Your task to perform on an android device: toggle notifications settings in the gmail app Image 0: 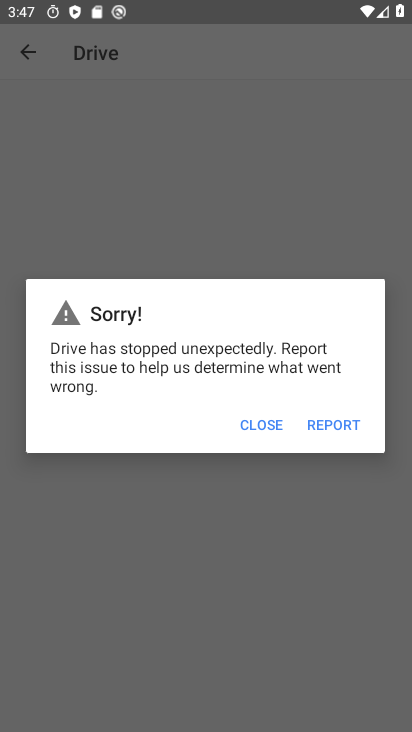
Step 0: press home button
Your task to perform on an android device: toggle notifications settings in the gmail app Image 1: 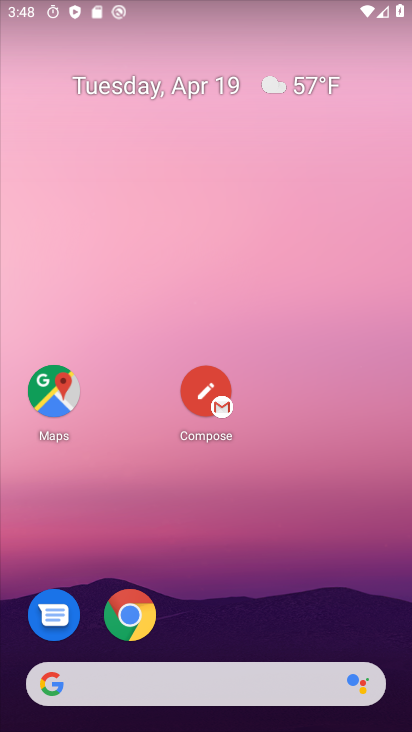
Step 1: drag from (266, 656) to (314, 203)
Your task to perform on an android device: toggle notifications settings in the gmail app Image 2: 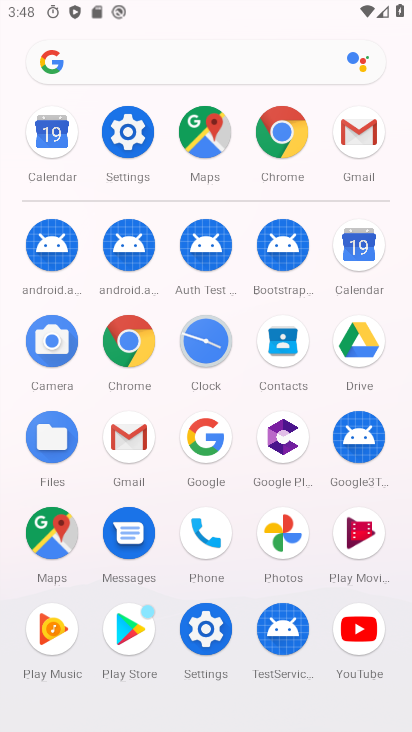
Step 2: click (123, 451)
Your task to perform on an android device: toggle notifications settings in the gmail app Image 3: 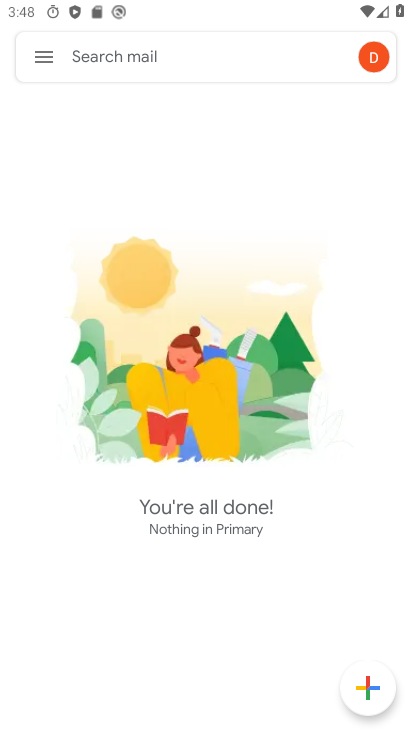
Step 3: click (40, 50)
Your task to perform on an android device: toggle notifications settings in the gmail app Image 4: 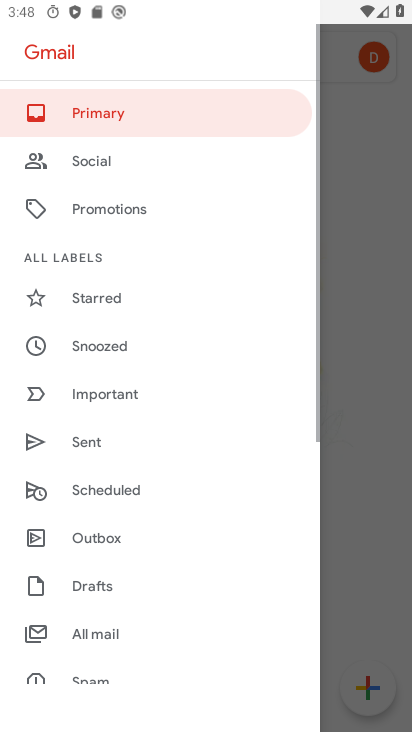
Step 4: drag from (152, 633) to (182, 122)
Your task to perform on an android device: toggle notifications settings in the gmail app Image 5: 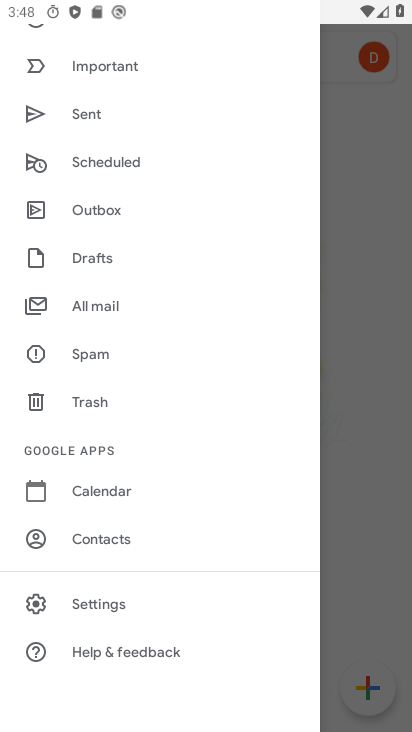
Step 5: click (120, 601)
Your task to perform on an android device: toggle notifications settings in the gmail app Image 6: 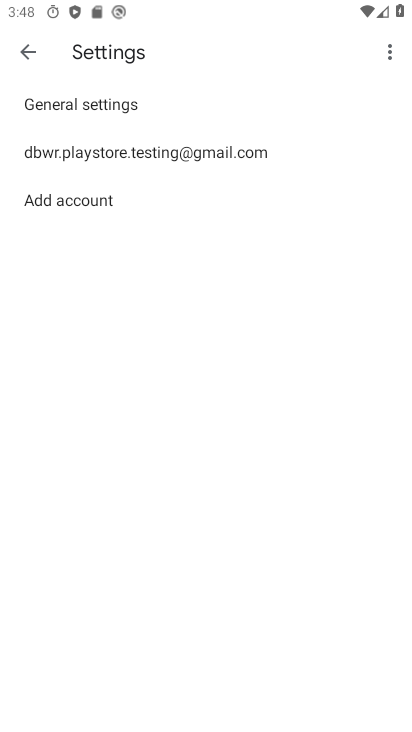
Step 6: click (161, 152)
Your task to perform on an android device: toggle notifications settings in the gmail app Image 7: 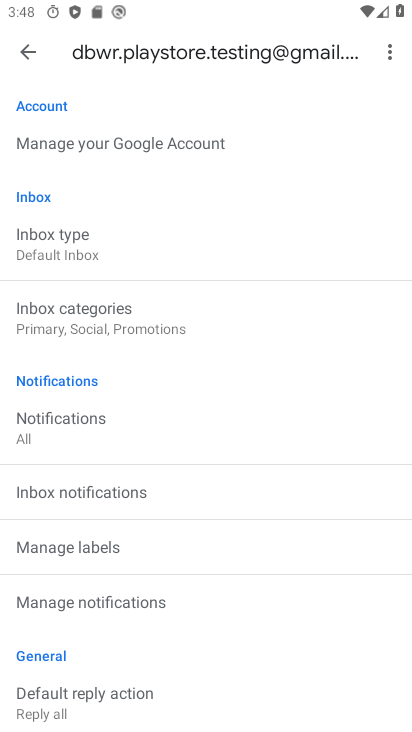
Step 7: drag from (258, 576) to (249, 145)
Your task to perform on an android device: toggle notifications settings in the gmail app Image 8: 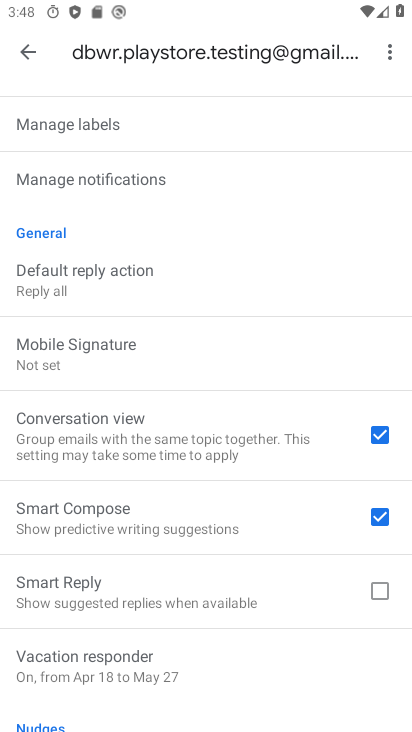
Step 8: click (205, 171)
Your task to perform on an android device: toggle notifications settings in the gmail app Image 9: 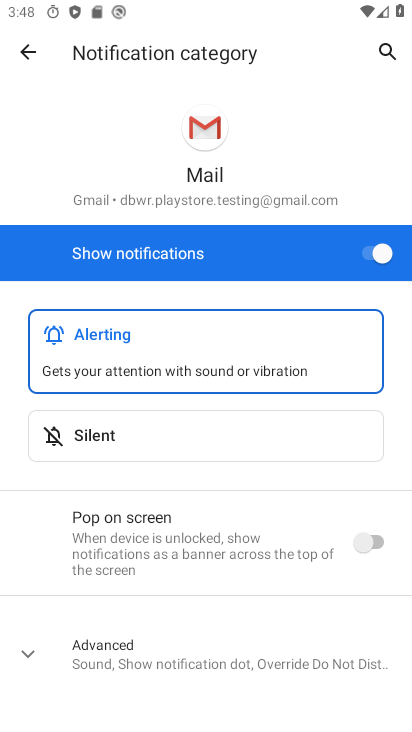
Step 9: click (365, 253)
Your task to perform on an android device: toggle notifications settings in the gmail app Image 10: 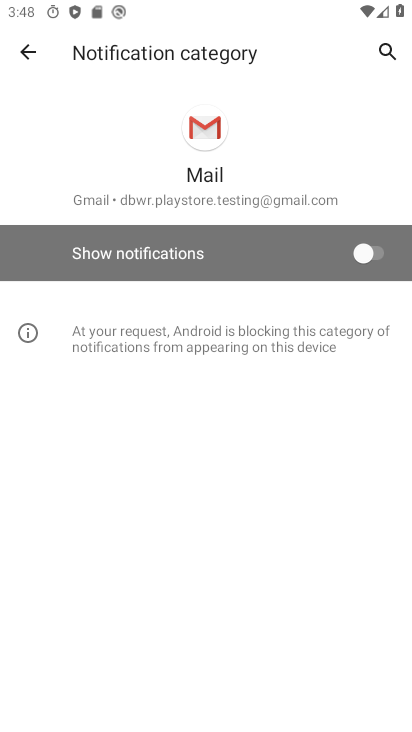
Step 10: task complete